Your task to perform on an android device: create a new album in the google photos Image 0: 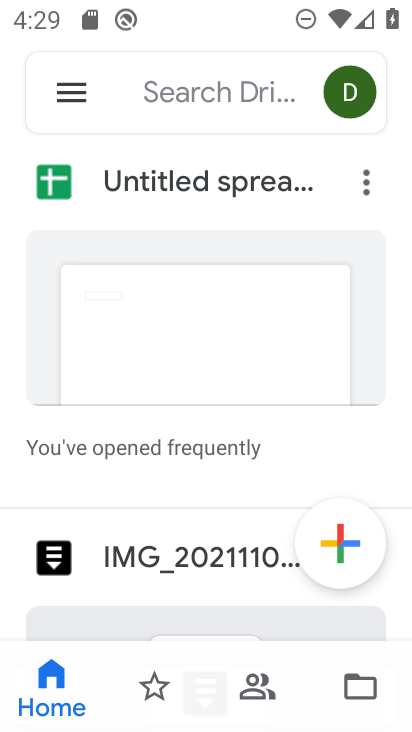
Step 0: press home button
Your task to perform on an android device: create a new album in the google photos Image 1: 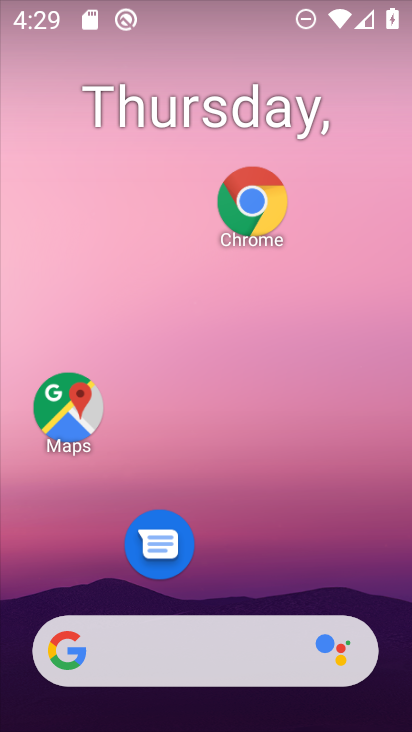
Step 1: click (331, 303)
Your task to perform on an android device: create a new album in the google photos Image 2: 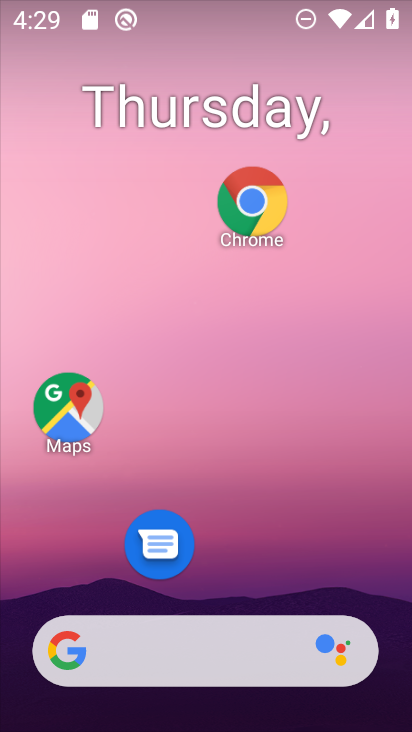
Step 2: drag from (264, 556) to (338, 125)
Your task to perform on an android device: create a new album in the google photos Image 3: 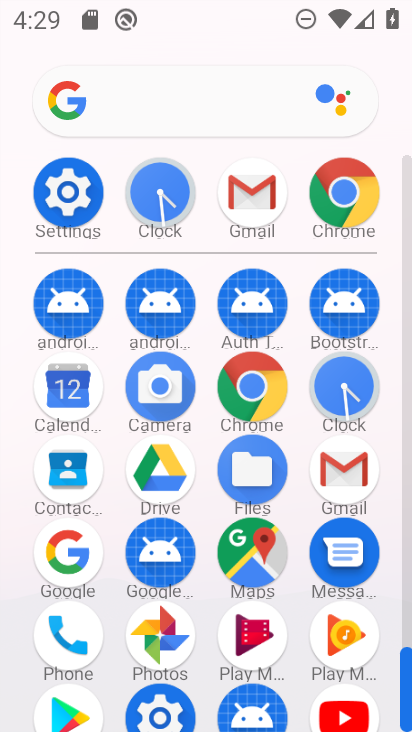
Step 3: click (135, 641)
Your task to perform on an android device: create a new album in the google photos Image 4: 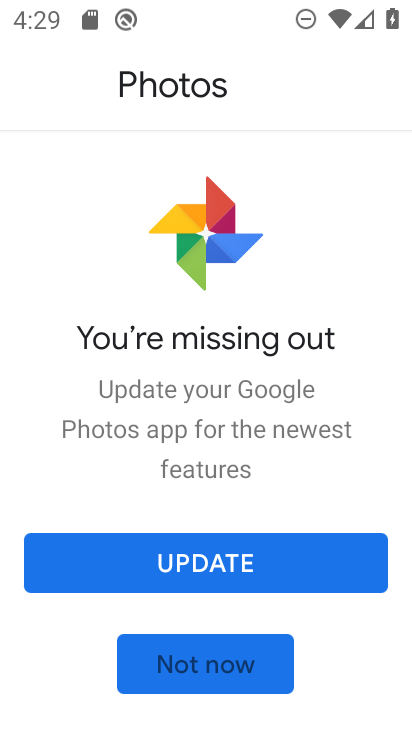
Step 4: click (256, 553)
Your task to perform on an android device: create a new album in the google photos Image 5: 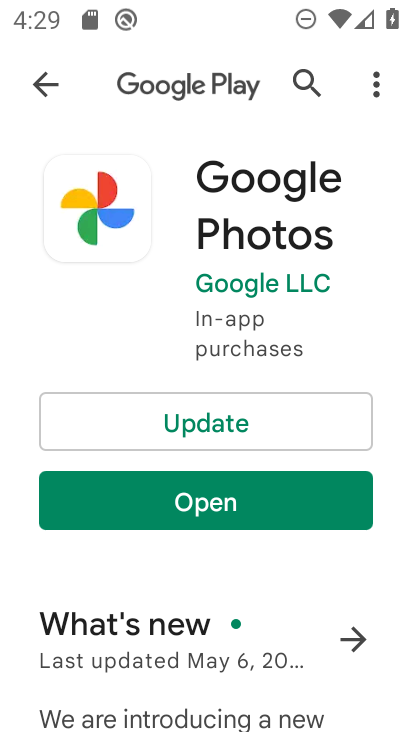
Step 5: click (223, 417)
Your task to perform on an android device: create a new album in the google photos Image 6: 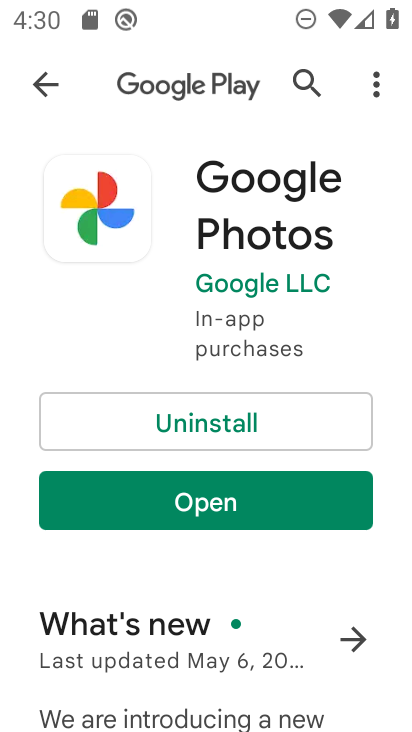
Step 6: click (236, 508)
Your task to perform on an android device: create a new album in the google photos Image 7: 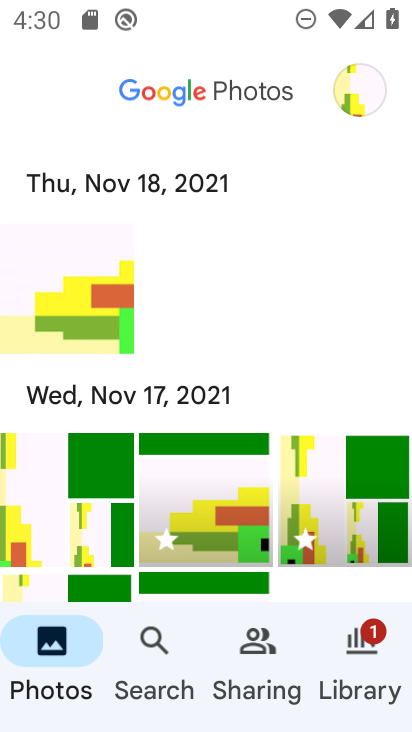
Step 7: click (95, 301)
Your task to perform on an android device: create a new album in the google photos Image 8: 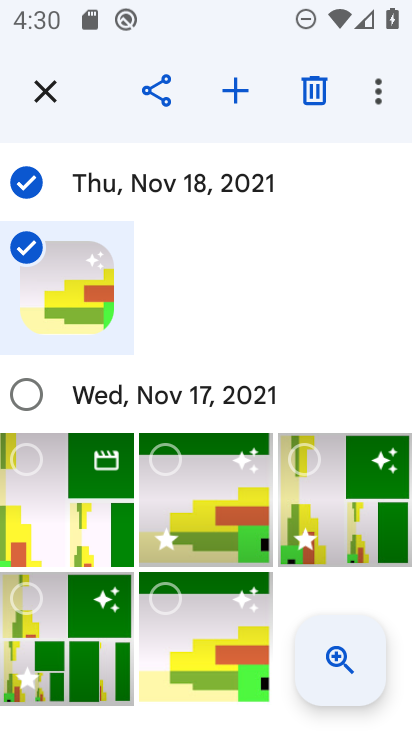
Step 8: click (92, 463)
Your task to perform on an android device: create a new album in the google photos Image 9: 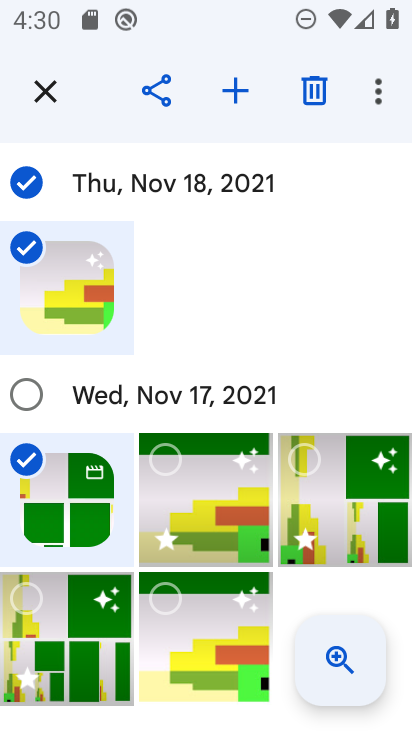
Step 9: click (157, 601)
Your task to perform on an android device: create a new album in the google photos Image 10: 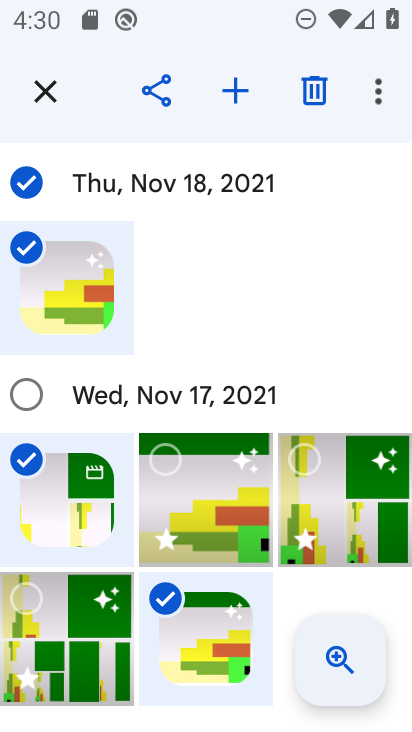
Step 10: click (230, 82)
Your task to perform on an android device: create a new album in the google photos Image 11: 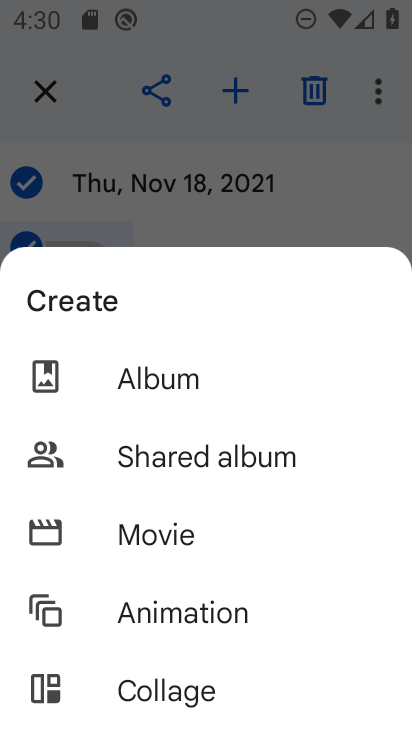
Step 11: click (188, 392)
Your task to perform on an android device: create a new album in the google photos Image 12: 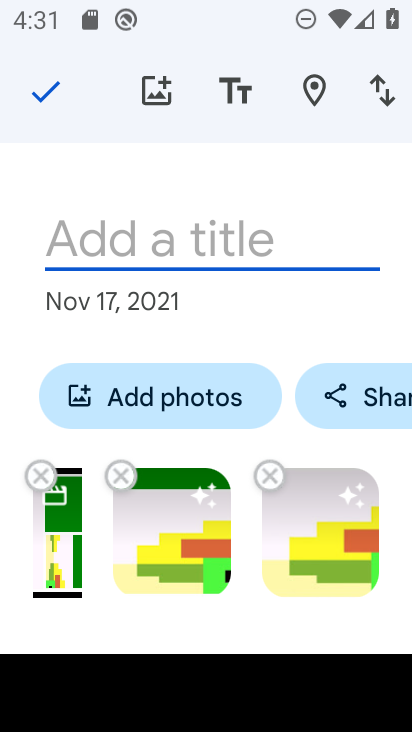
Step 12: type "sgfhgjjym"
Your task to perform on an android device: create a new album in the google photos Image 13: 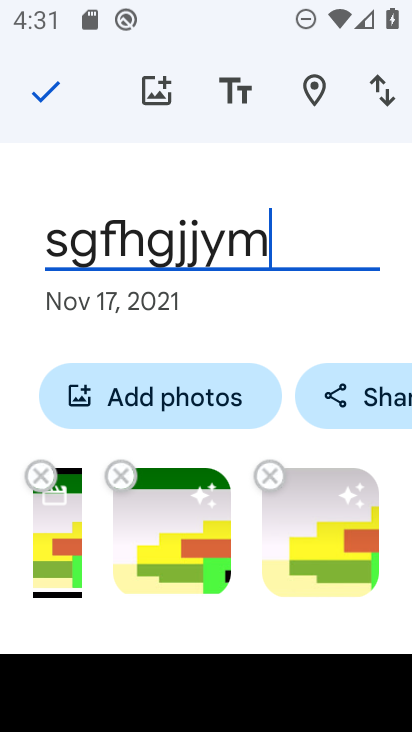
Step 13: click (38, 92)
Your task to perform on an android device: create a new album in the google photos Image 14: 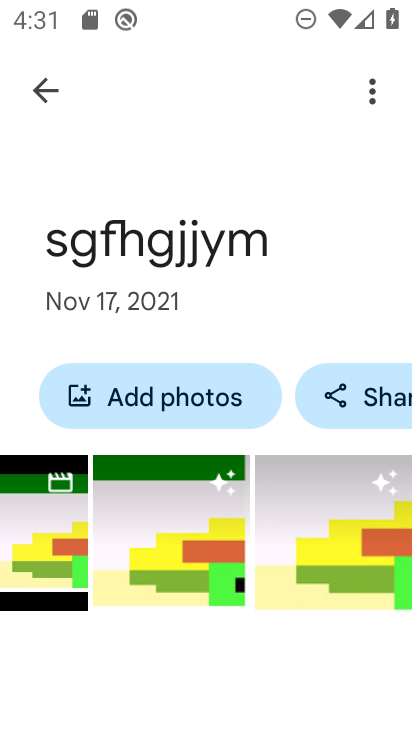
Step 14: task complete